Your task to perform on an android device: turn on airplane mode Image 0: 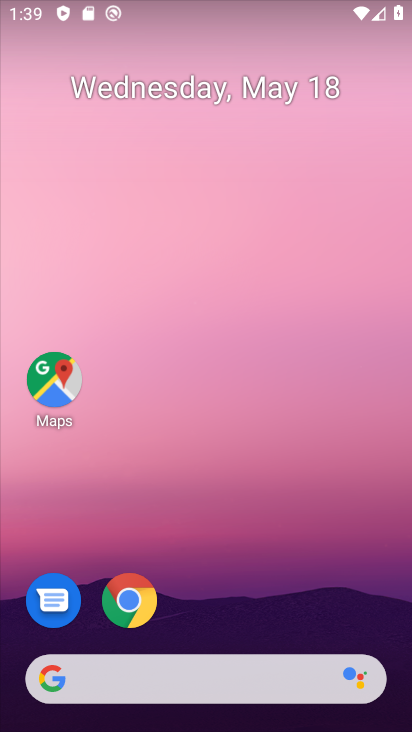
Step 0: drag from (210, 650) to (329, 9)
Your task to perform on an android device: turn on airplane mode Image 1: 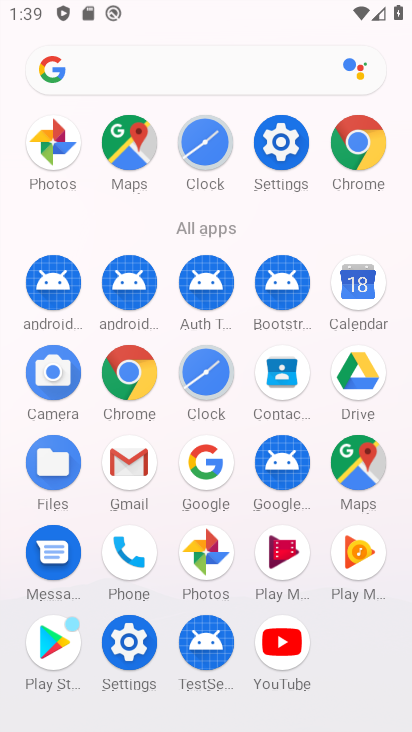
Step 1: click (279, 148)
Your task to perform on an android device: turn on airplane mode Image 2: 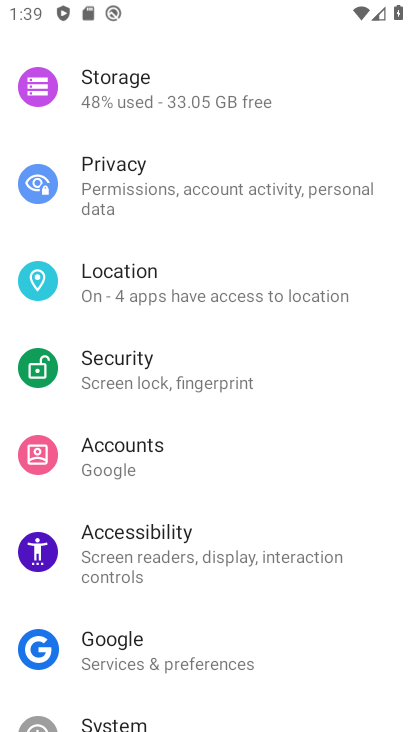
Step 2: drag from (231, 116) to (191, 651)
Your task to perform on an android device: turn on airplane mode Image 3: 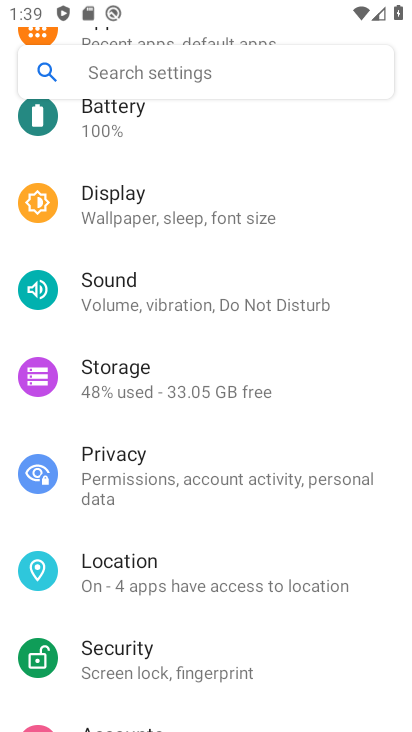
Step 3: drag from (172, 130) to (171, 559)
Your task to perform on an android device: turn on airplane mode Image 4: 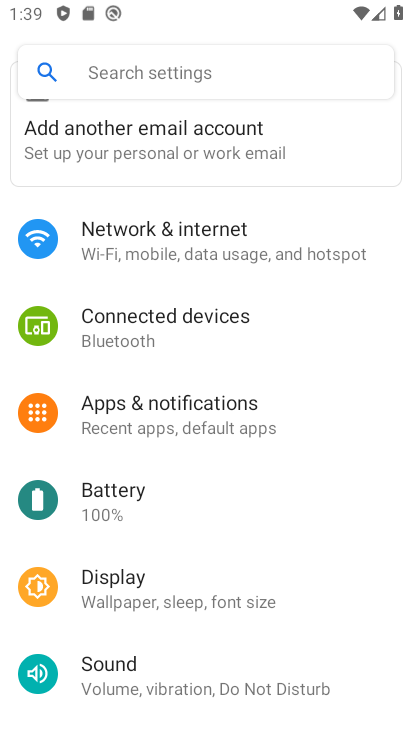
Step 4: click (154, 241)
Your task to perform on an android device: turn on airplane mode Image 5: 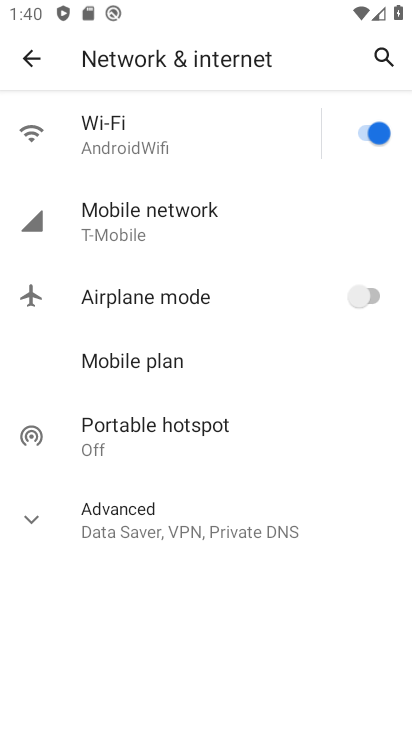
Step 5: click (368, 293)
Your task to perform on an android device: turn on airplane mode Image 6: 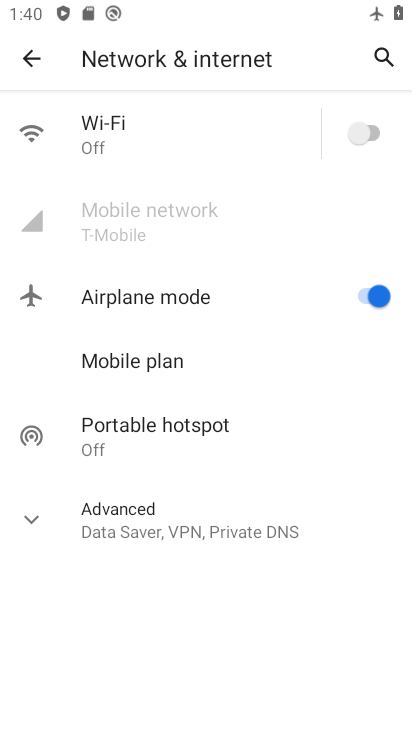
Step 6: task complete